Your task to perform on an android device: turn on translation in the chrome app Image 0: 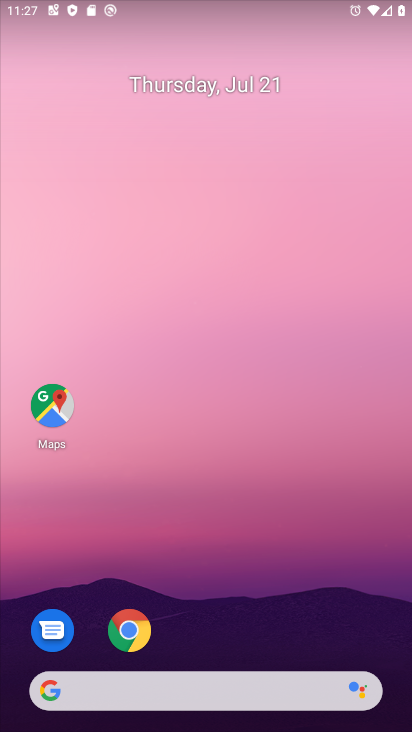
Step 0: drag from (212, 652) to (168, 115)
Your task to perform on an android device: turn on translation in the chrome app Image 1: 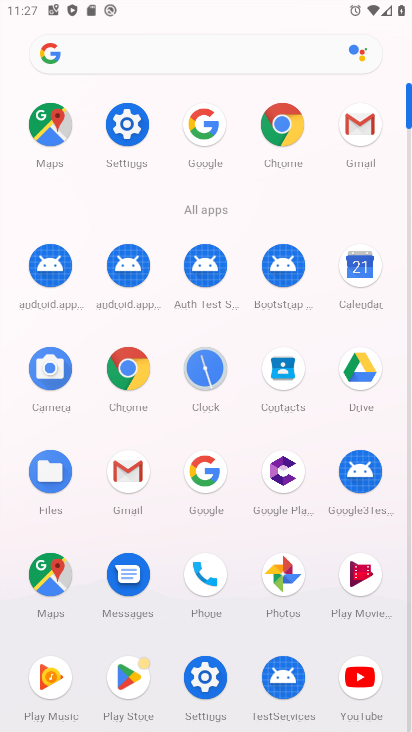
Step 1: click (134, 371)
Your task to perform on an android device: turn on translation in the chrome app Image 2: 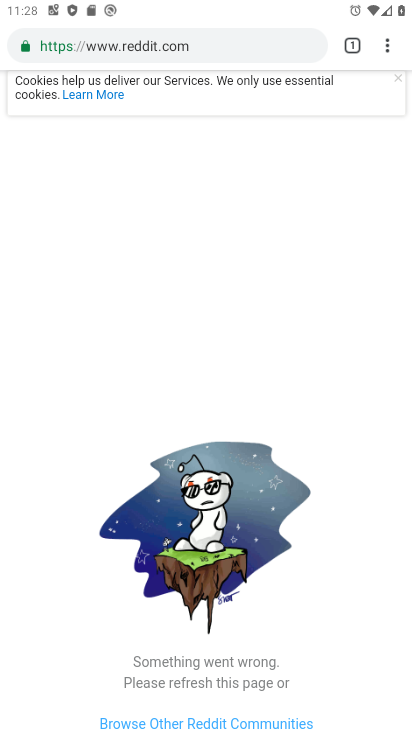
Step 2: click (386, 43)
Your task to perform on an android device: turn on translation in the chrome app Image 3: 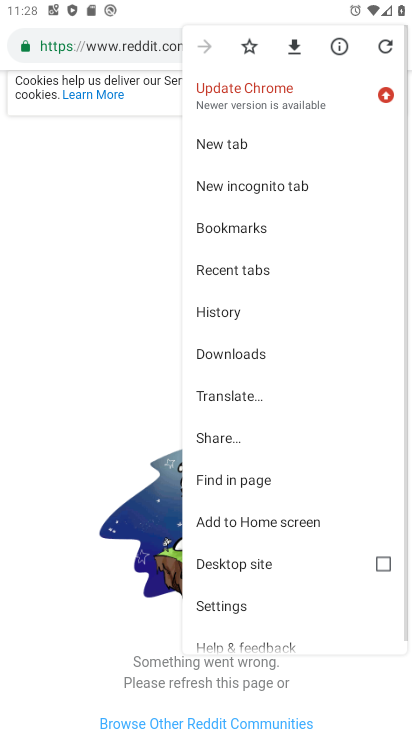
Step 3: click (226, 603)
Your task to perform on an android device: turn on translation in the chrome app Image 4: 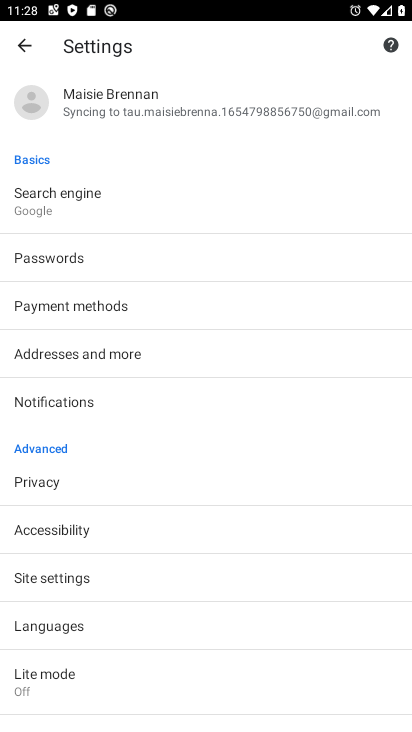
Step 4: drag from (160, 588) to (142, 223)
Your task to perform on an android device: turn on translation in the chrome app Image 5: 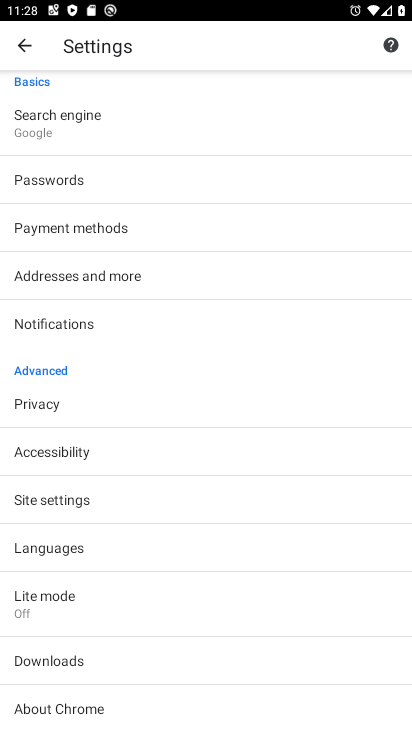
Step 5: click (53, 538)
Your task to perform on an android device: turn on translation in the chrome app Image 6: 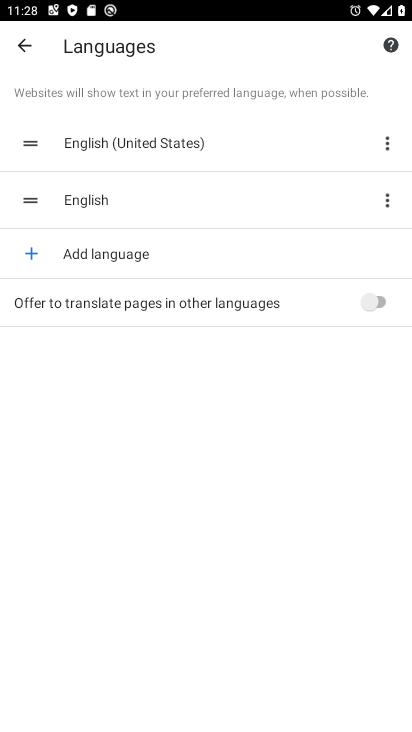
Step 6: click (375, 299)
Your task to perform on an android device: turn on translation in the chrome app Image 7: 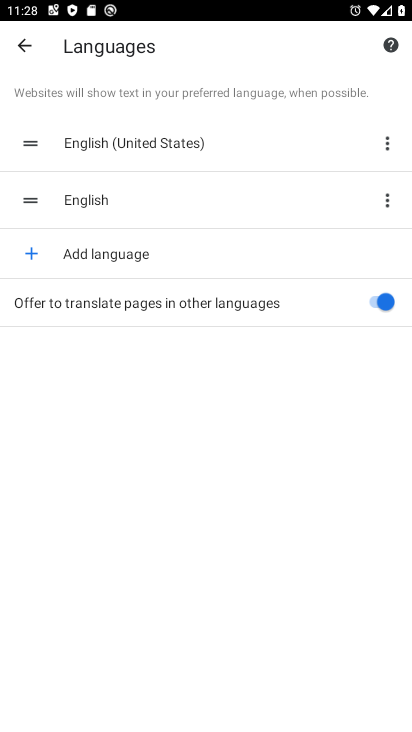
Step 7: task complete